Your task to perform on an android device: Go to CNN.com Image 0: 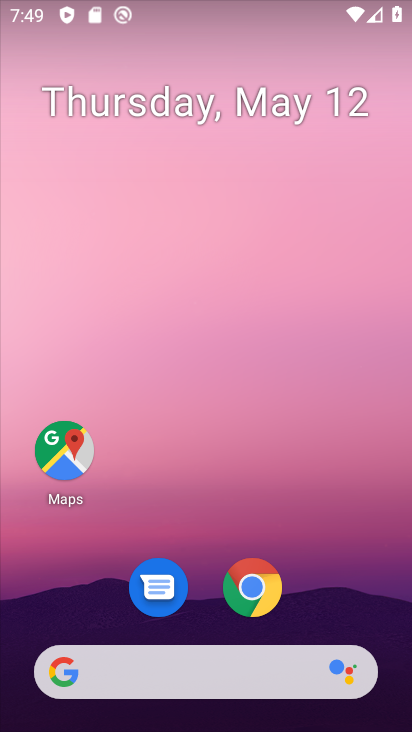
Step 0: drag from (316, 613) to (321, 194)
Your task to perform on an android device: Go to CNN.com Image 1: 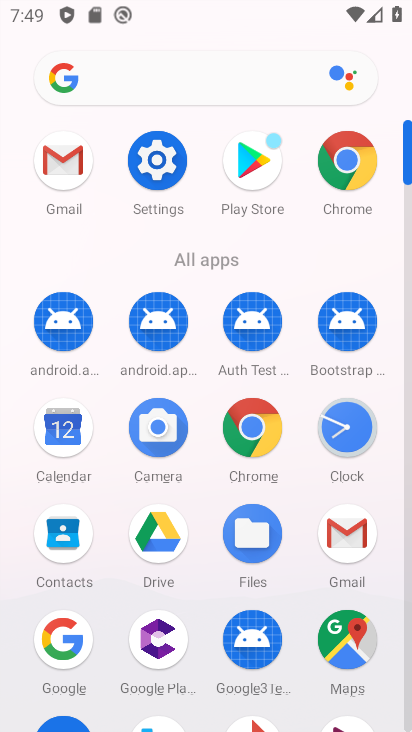
Step 1: click (251, 415)
Your task to perform on an android device: Go to CNN.com Image 2: 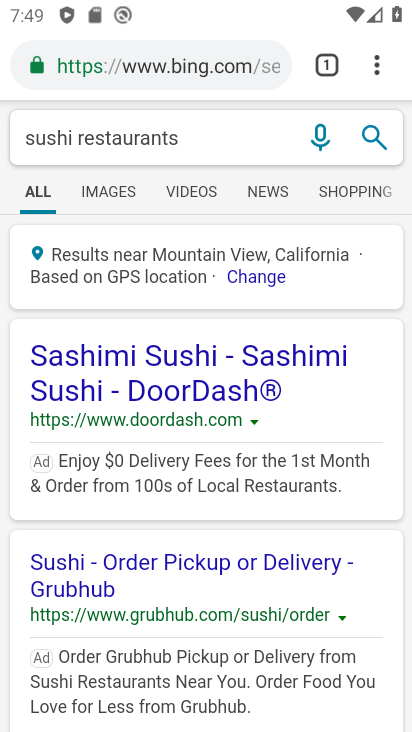
Step 2: click (363, 68)
Your task to perform on an android device: Go to CNN.com Image 3: 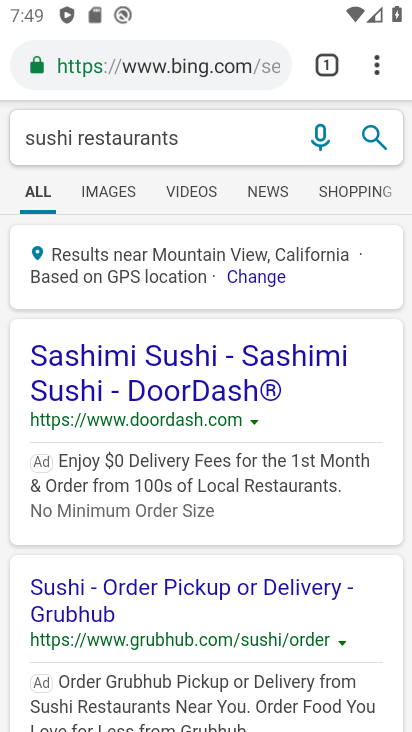
Step 3: click (363, 58)
Your task to perform on an android device: Go to CNN.com Image 4: 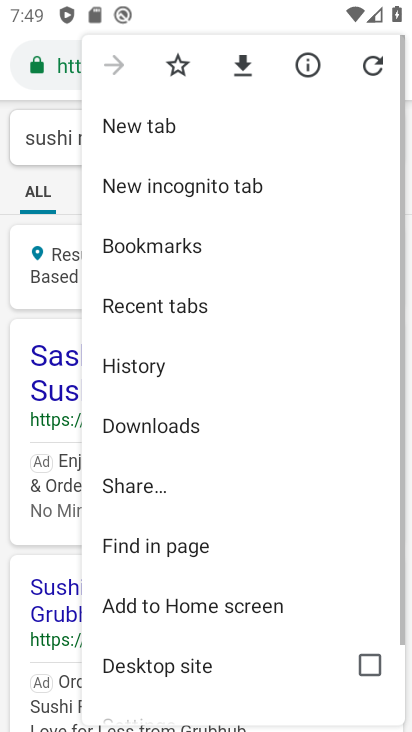
Step 4: click (122, 125)
Your task to perform on an android device: Go to CNN.com Image 5: 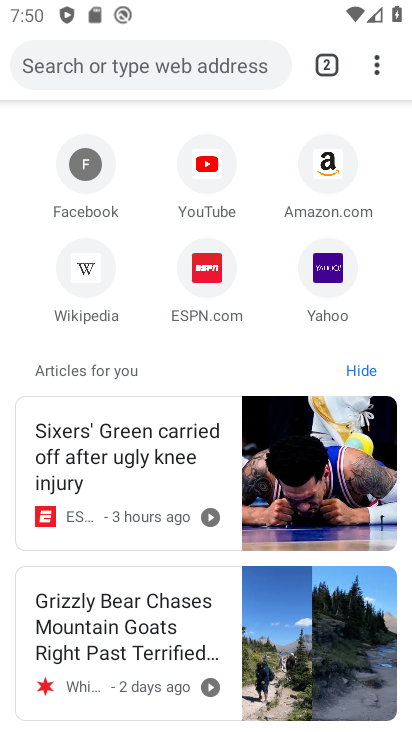
Step 5: click (63, 43)
Your task to perform on an android device: Go to CNN.com Image 6: 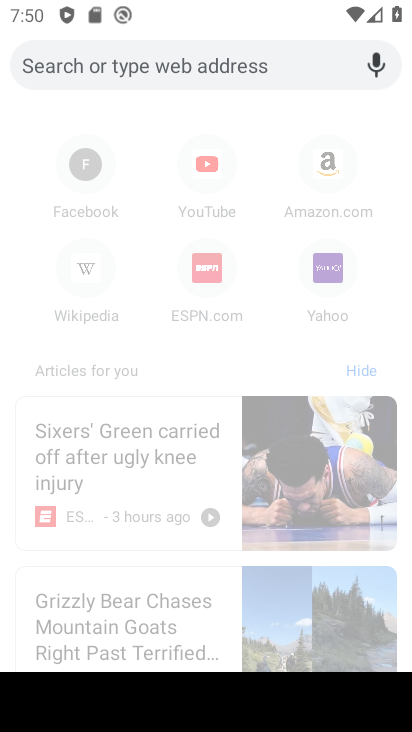
Step 6: type "CNN.com"
Your task to perform on an android device: Go to CNN.com Image 7: 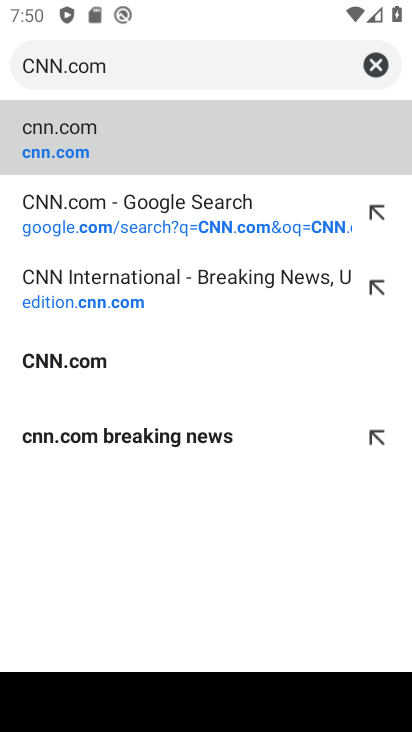
Step 7: click (228, 132)
Your task to perform on an android device: Go to CNN.com Image 8: 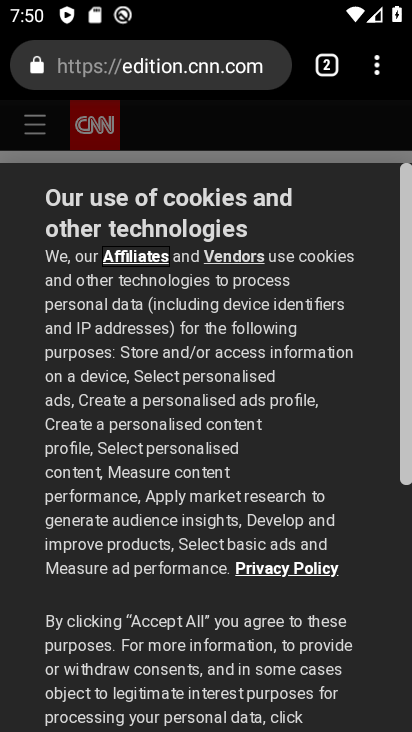
Step 8: task complete